Your task to perform on an android device: Open Chrome and go to the settings page Image 0: 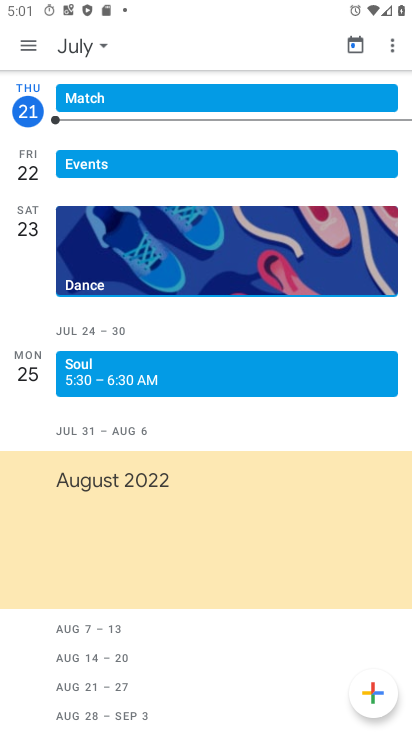
Step 0: press home button
Your task to perform on an android device: Open Chrome and go to the settings page Image 1: 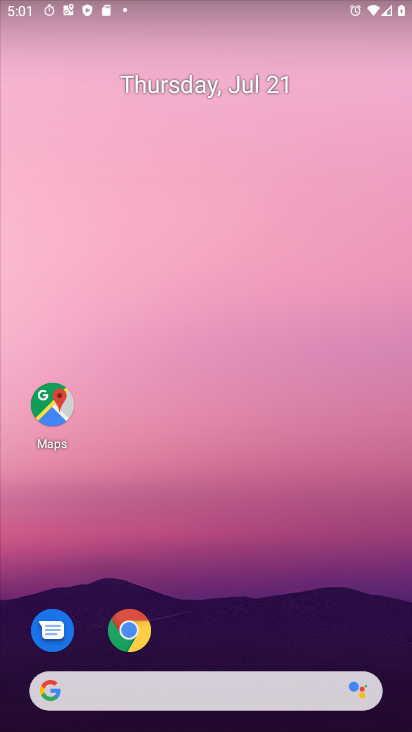
Step 1: click (129, 631)
Your task to perform on an android device: Open Chrome and go to the settings page Image 2: 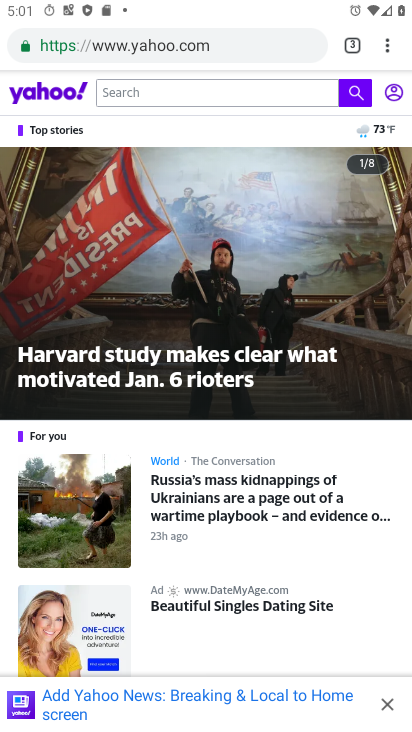
Step 2: click (388, 45)
Your task to perform on an android device: Open Chrome and go to the settings page Image 3: 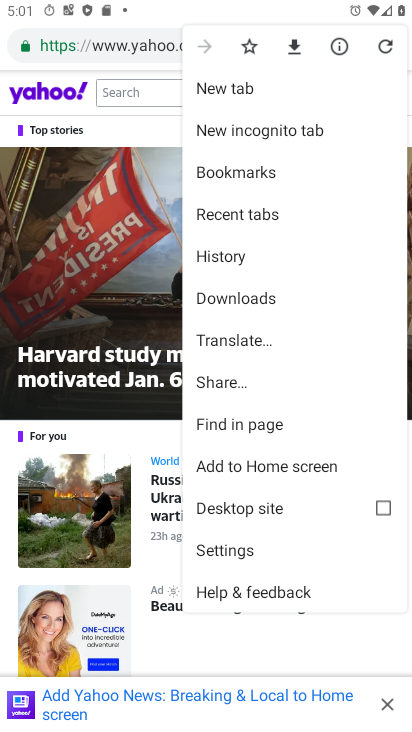
Step 3: click (230, 549)
Your task to perform on an android device: Open Chrome and go to the settings page Image 4: 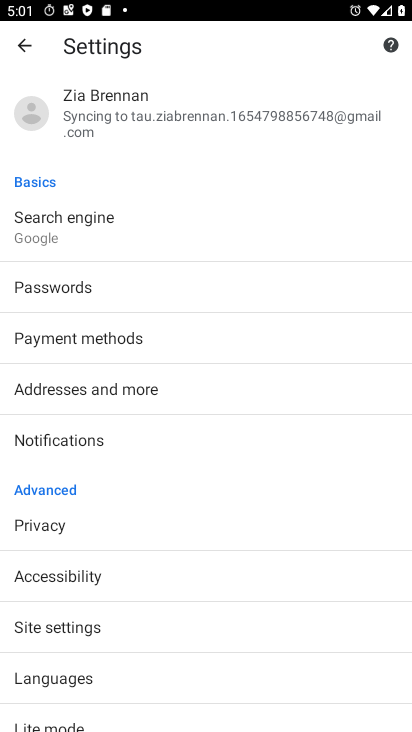
Step 4: task complete